Your task to perform on an android device: Show me the alarms in the clock app Image 0: 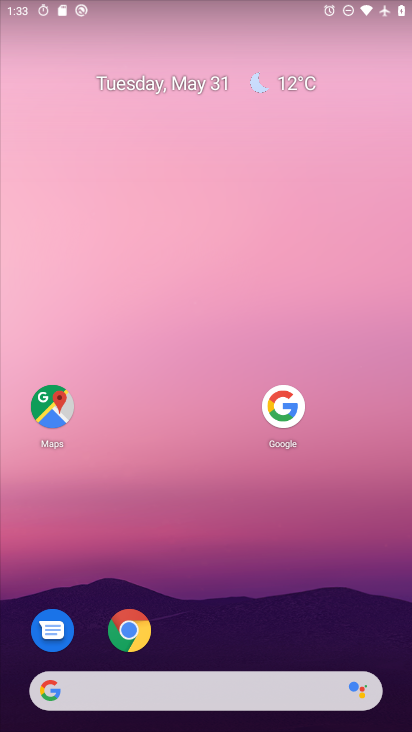
Step 0: press home button
Your task to perform on an android device: Show me the alarms in the clock app Image 1: 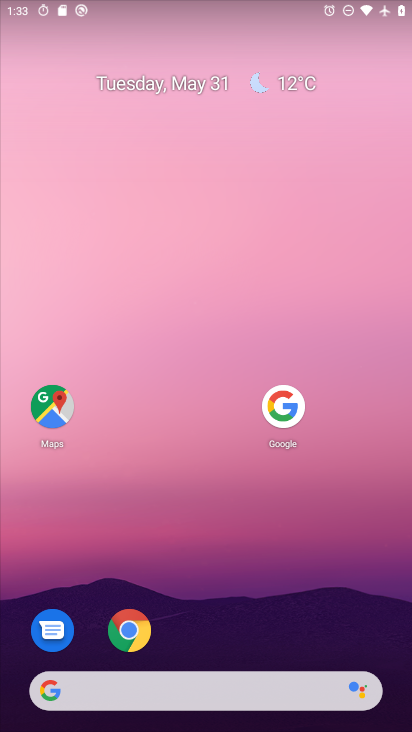
Step 1: drag from (240, 689) to (326, 101)
Your task to perform on an android device: Show me the alarms in the clock app Image 2: 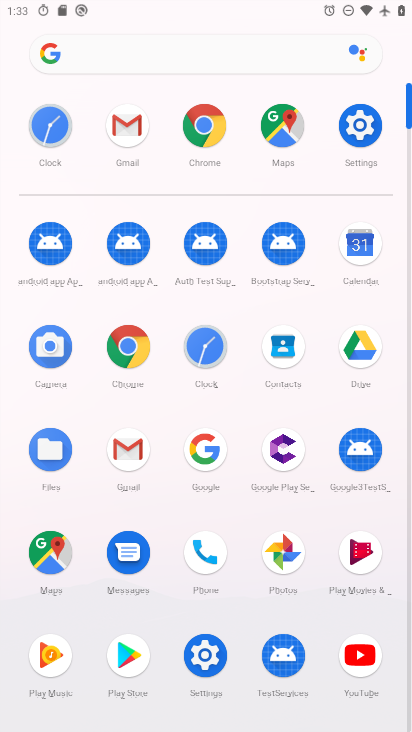
Step 2: click (44, 130)
Your task to perform on an android device: Show me the alarms in the clock app Image 3: 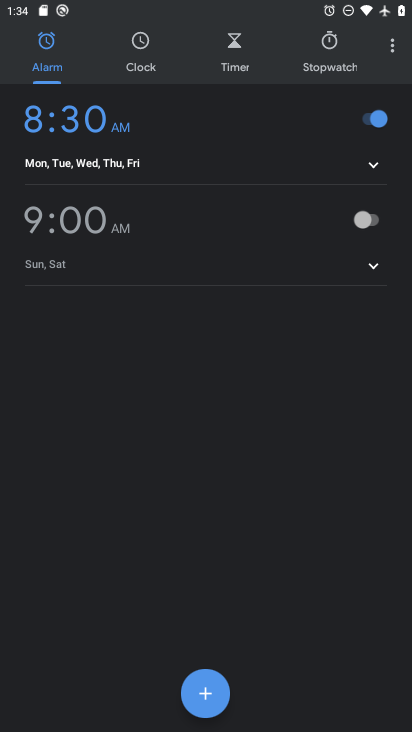
Step 3: task complete